Your task to perform on an android device: Go to network settings Image 0: 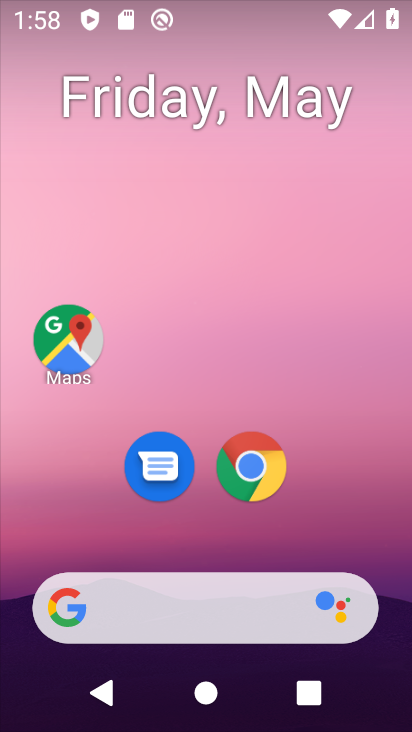
Step 0: drag from (321, 513) to (356, 115)
Your task to perform on an android device: Go to network settings Image 1: 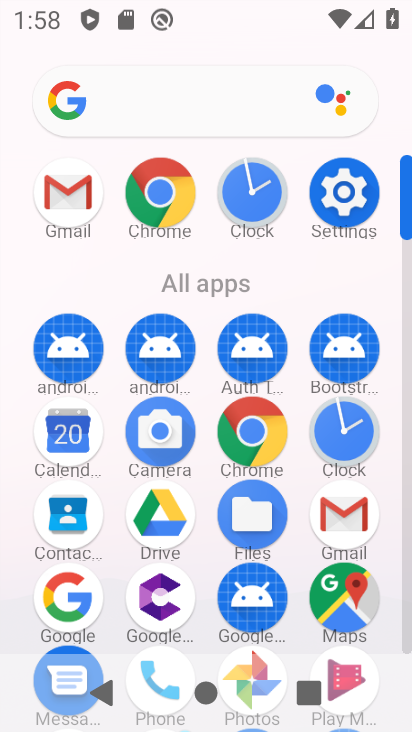
Step 1: click (340, 192)
Your task to perform on an android device: Go to network settings Image 2: 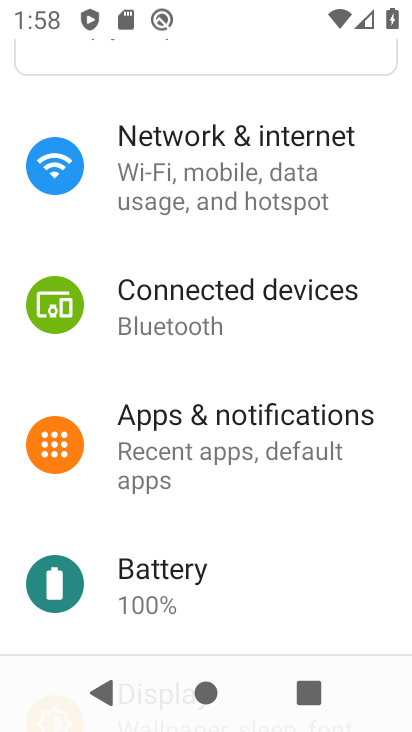
Step 2: drag from (242, 495) to (205, 538)
Your task to perform on an android device: Go to network settings Image 3: 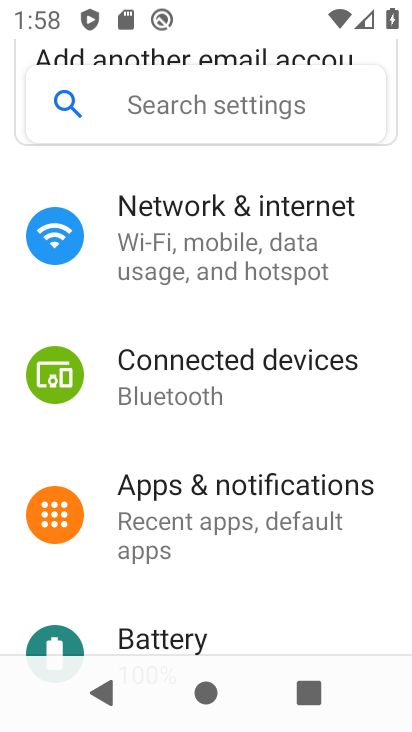
Step 3: click (214, 216)
Your task to perform on an android device: Go to network settings Image 4: 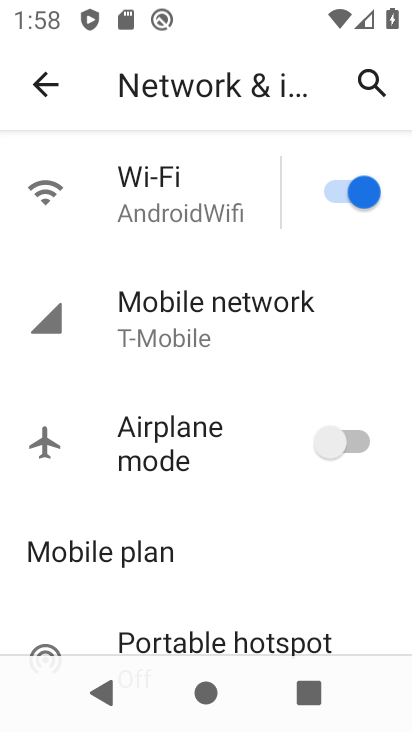
Step 4: task complete